Your task to perform on an android device: Show me recent news Image 0: 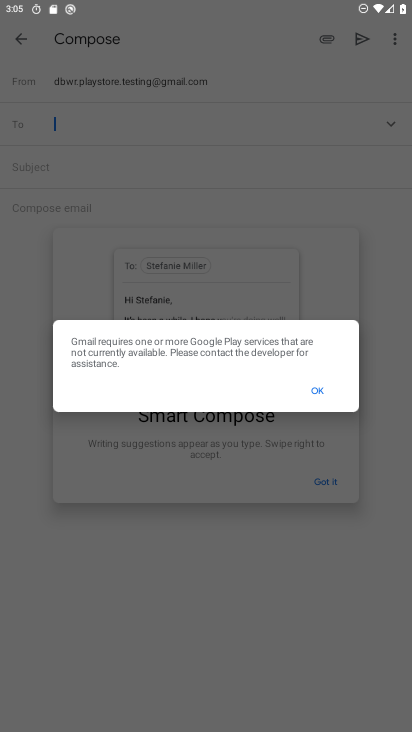
Step 0: drag from (2, 259) to (269, 253)
Your task to perform on an android device: Show me recent news Image 1: 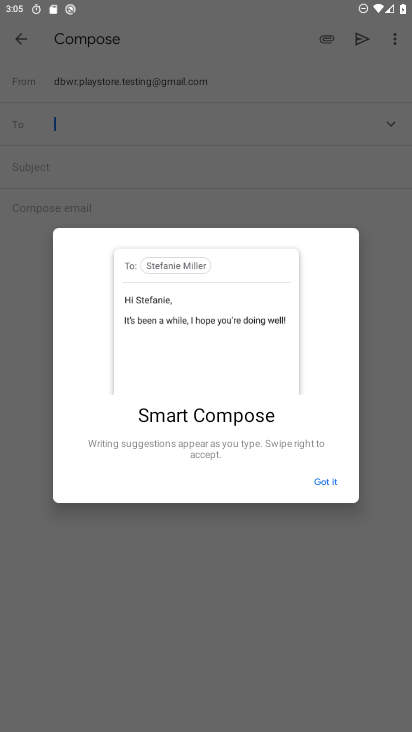
Step 1: task complete